Your task to perform on an android device: turn off location history Image 0: 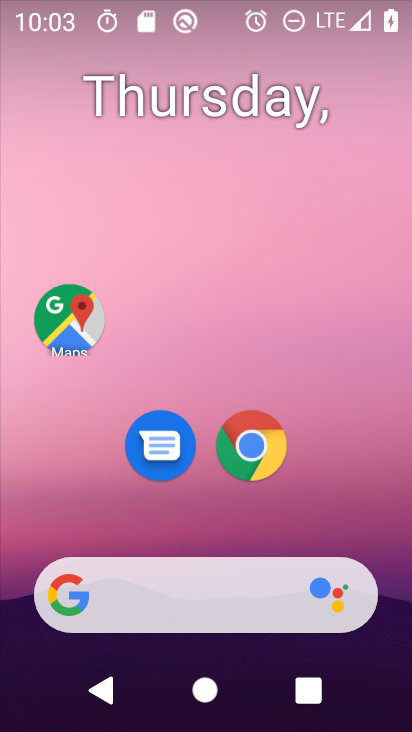
Step 0: drag from (180, 532) to (312, 131)
Your task to perform on an android device: turn off location history Image 1: 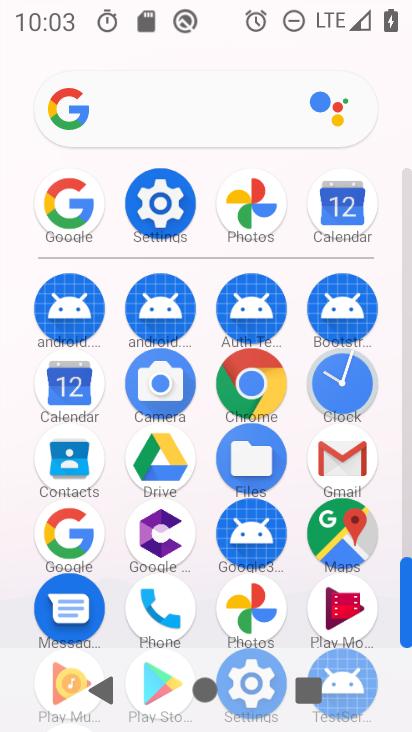
Step 1: click (163, 184)
Your task to perform on an android device: turn off location history Image 2: 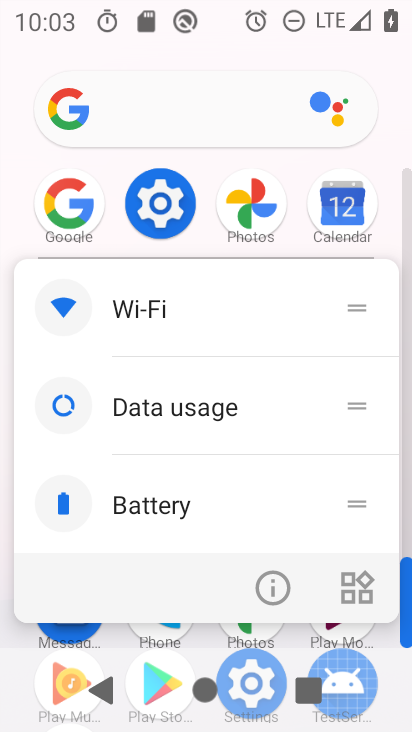
Step 2: click (280, 586)
Your task to perform on an android device: turn off location history Image 3: 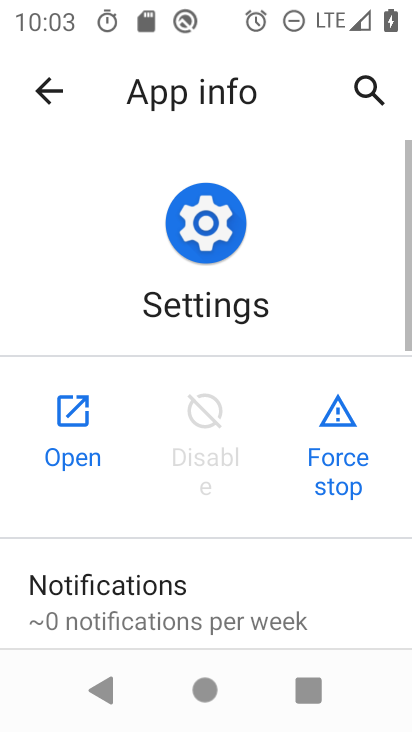
Step 3: click (86, 424)
Your task to perform on an android device: turn off location history Image 4: 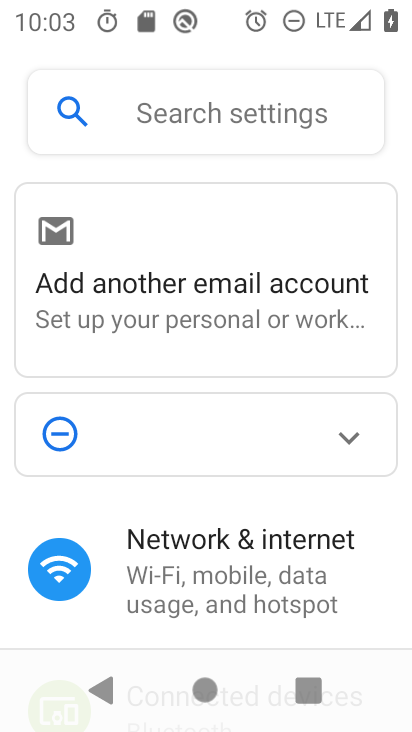
Step 4: drag from (213, 564) to (365, 60)
Your task to perform on an android device: turn off location history Image 5: 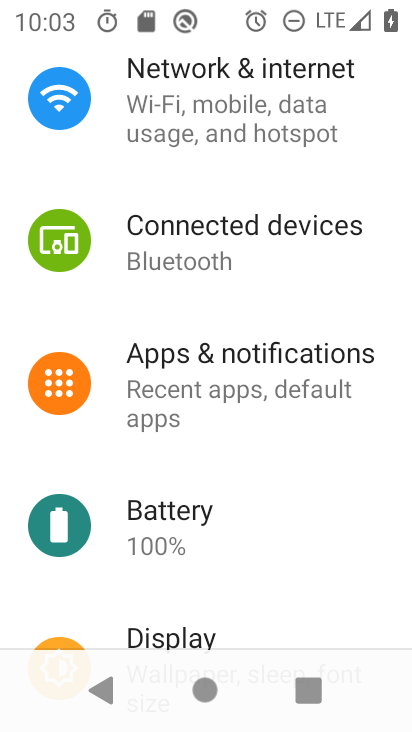
Step 5: drag from (207, 525) to (312, 61)
Your task to perform on an android device: turn off location history Image 6: 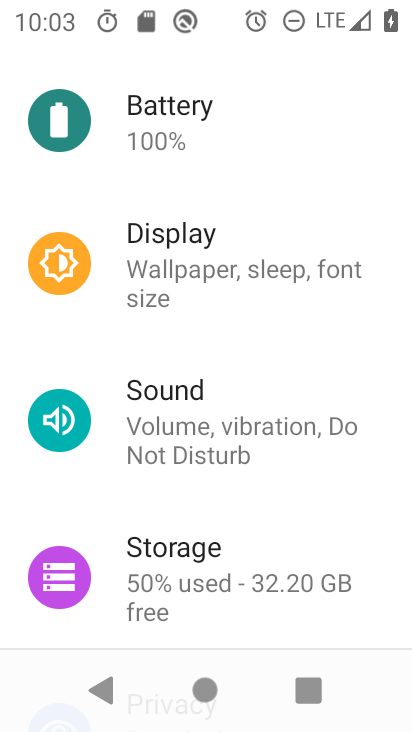
Step 6: drag from (181, 564) to (256, 111)
Your task to perform on an android device: turn off location history Image 7: 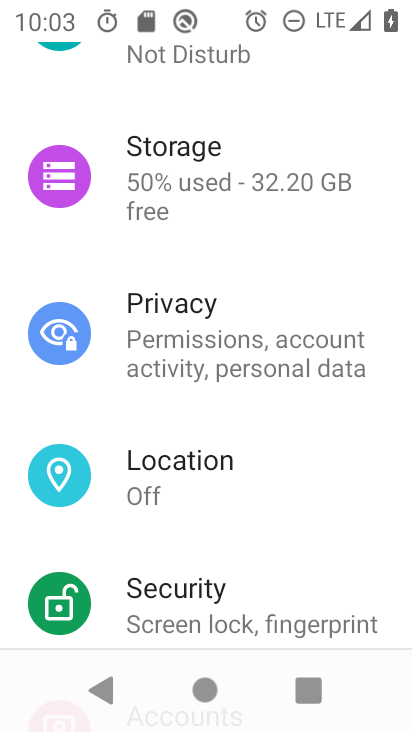
Step 7: click (175, 464)
Your task to perform on an android device: turn off location history Image 8: 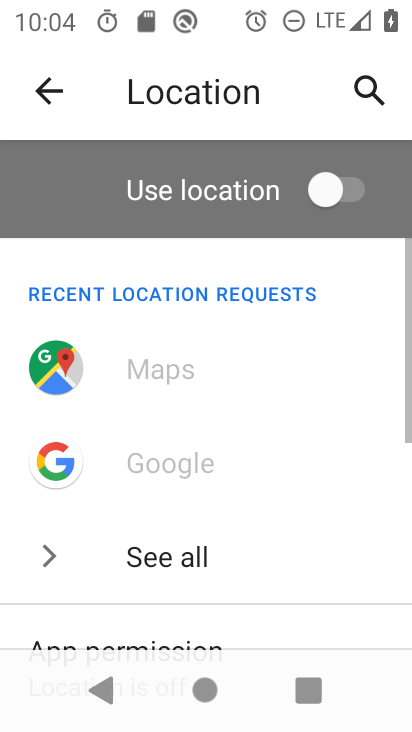
Step 8: drag from (242, 561) to (324, 117)
Your task to perform on an android device: turn off location history Image 9: 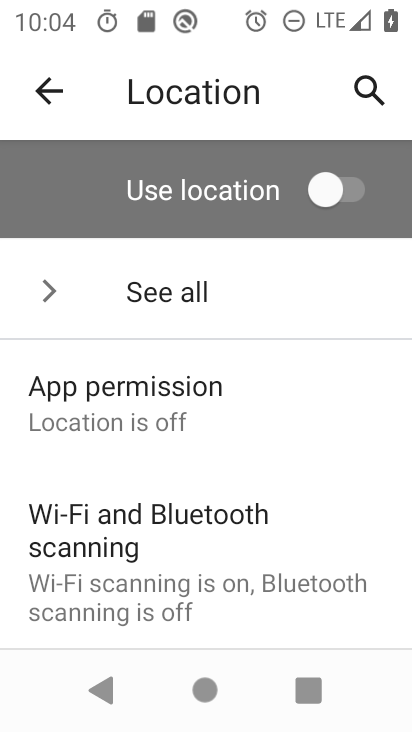
Step 9: drag from (189, 552) to (302, 139)
Your task to perform on an android device: turn off location history Image 10: 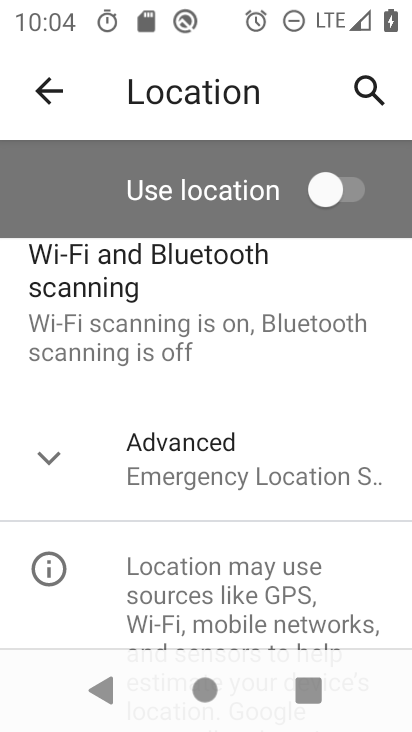
Step 10: click (200, 486)
Your task to perform on an android device: turn off location history Image 11: 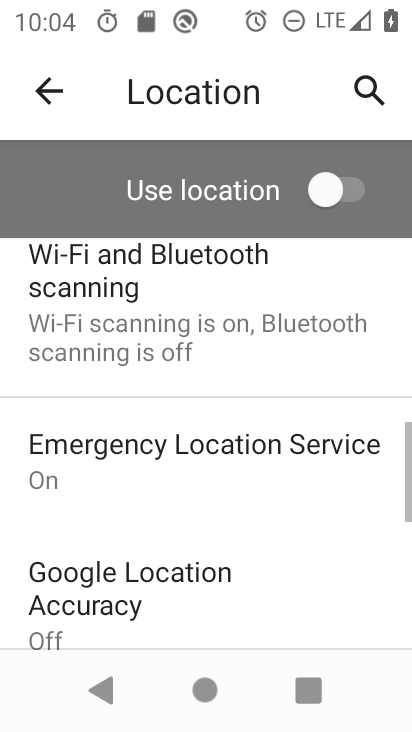
Step 11: drag from (225, 546) to (286, 227)
Your task to perform on an android device: turn off location history Image 12: 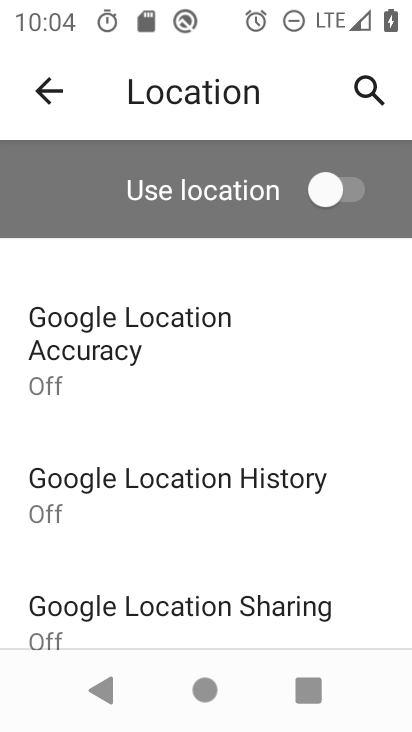
Step 12: click (177, 497)
Your task to perform on an android device: turn off location history Image 13: 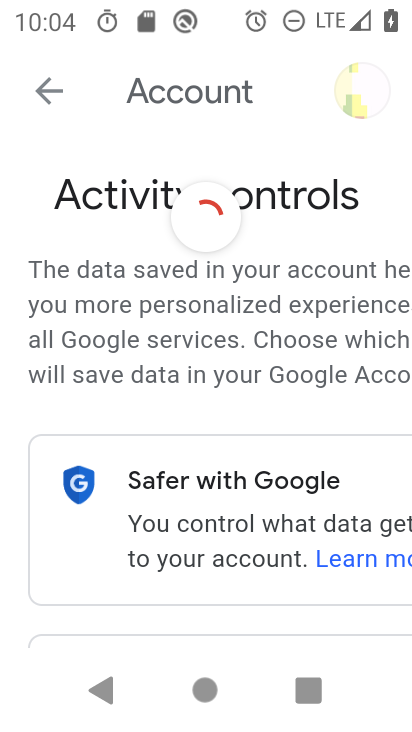
Step 13: task complete